Your task to perform on an android device: toggle location history Image 0: 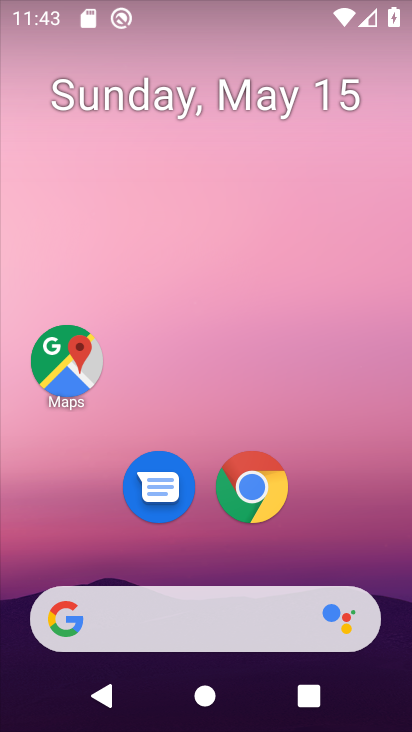
Step 0: drag from (247, 564) to (243, 154)
Your task to perform on an android device: toggle location history Image 1: 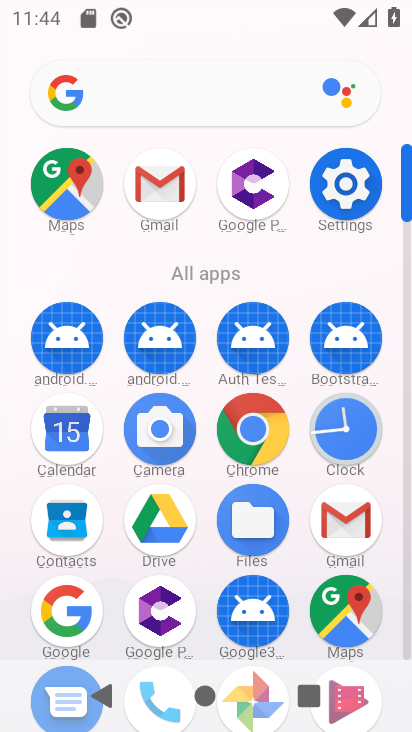
Step 1: click (340, 221)
Your task to perform on an android device: toggle location history Image 2: 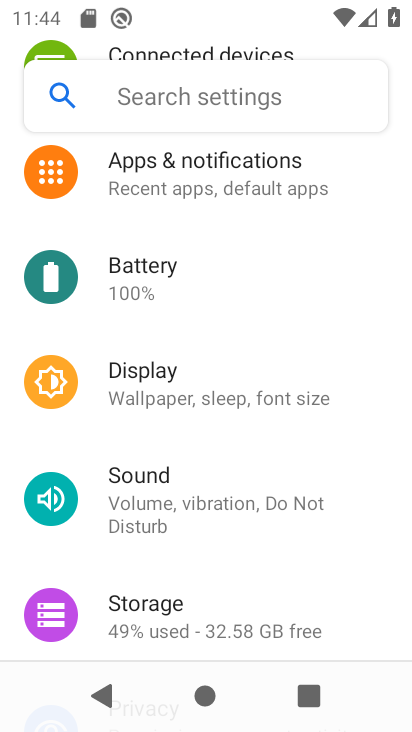
Step 2: drag from (192, 450) to (184, 287)
Your task to perform on an android device: toggle location history Image 3: 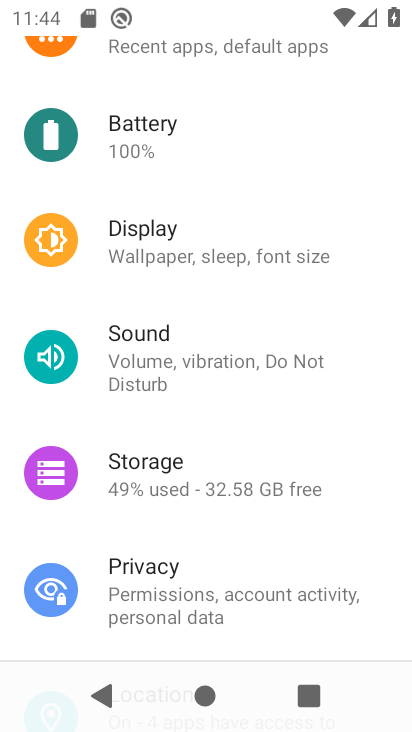
Step 3: drag from (204, 511) to (212, 387)
Your task to perform on an android device: toggle location history Image 4: 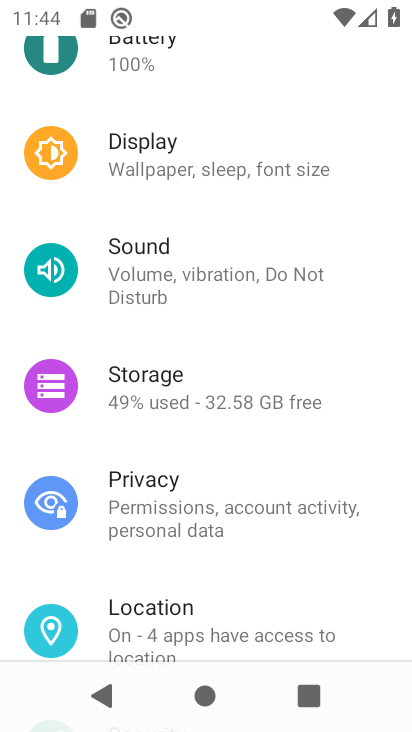
Step 4: click (199, 615)
Your task to perform on an android device: toggle location history Image 5: 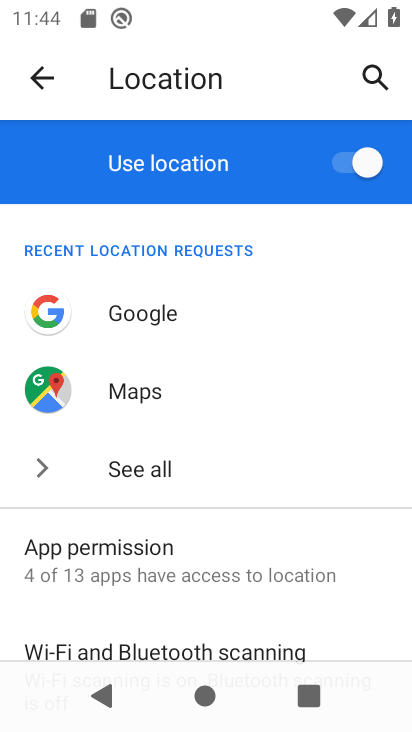
Step 5: drag from (192, 486) to (205, 248)
Your task to perform on an android device: toggle location history Image 6: 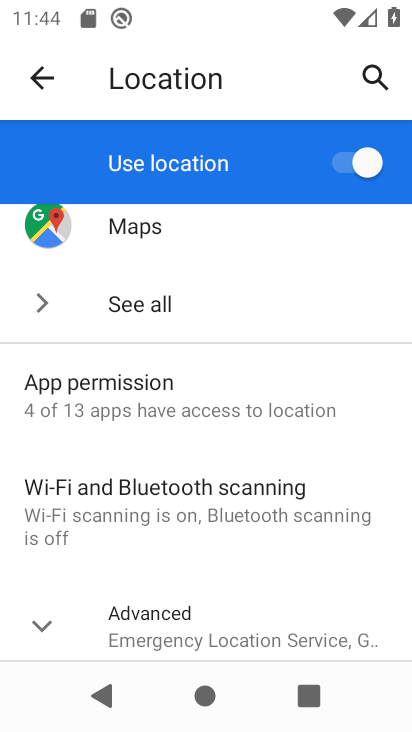
Step 6: drag from (207, 460) to (192, 181)
Your task to perform on an android device: toggle location history Image 7: 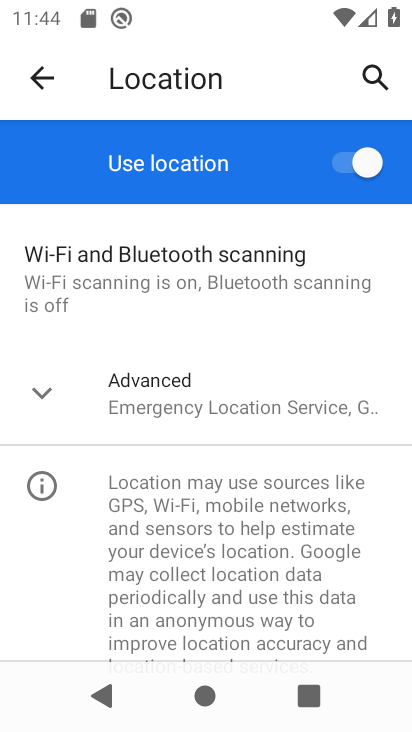
Step 7: click (174, 399)
Your task to perform on an android device: toggle location history Image 8: 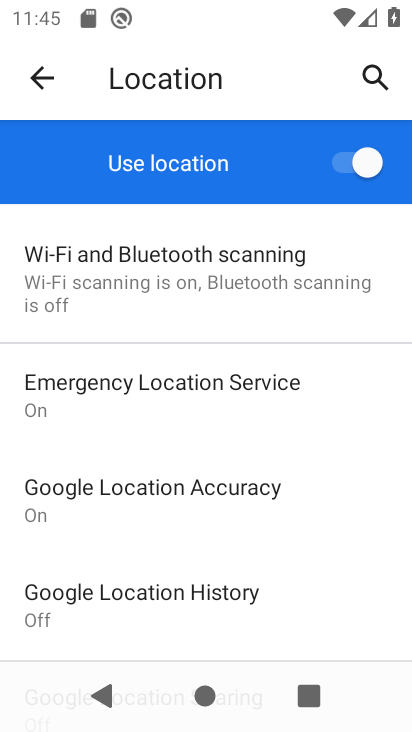
Step 8: drag from (164, 470) to (159, 393)
Your task to perform on an android device: toggle location history Image 9: 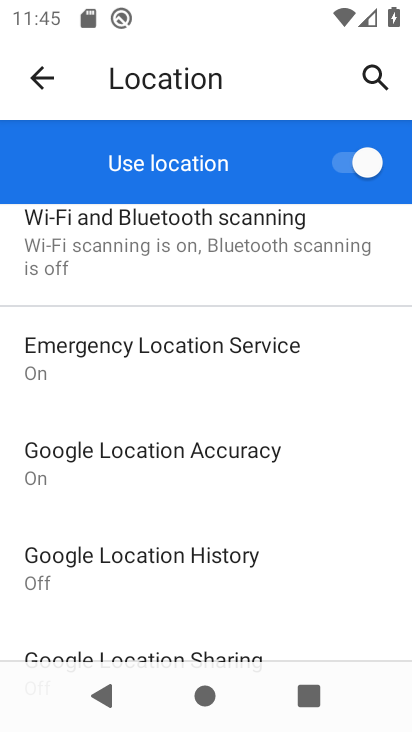
Step 9: click (171, 565)
Your task to perform on an android device: toggle location history Image 10: 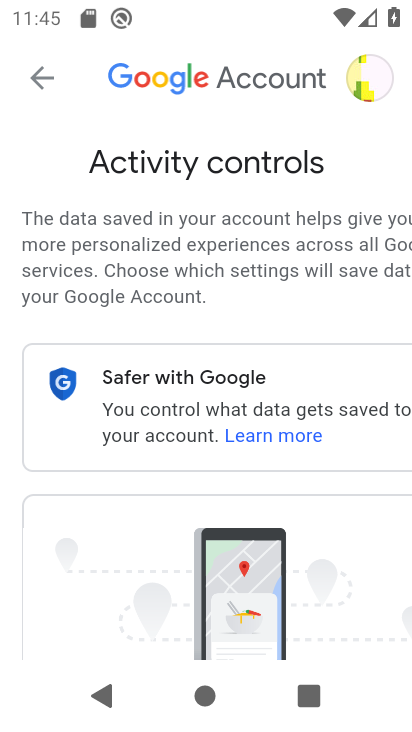
Step 10: drag from (291, 566) to (143, 217)
Your task to perform on an android device: toggle location history Image 11: 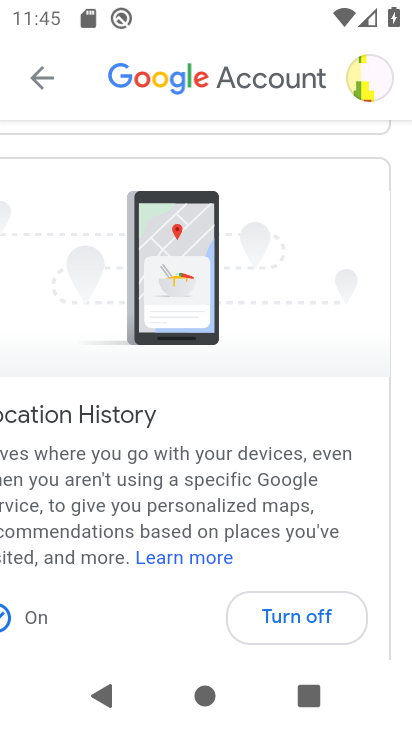
Step 11: click (316, 626)
Your task to perform on an android device: toggle location history Image 12: 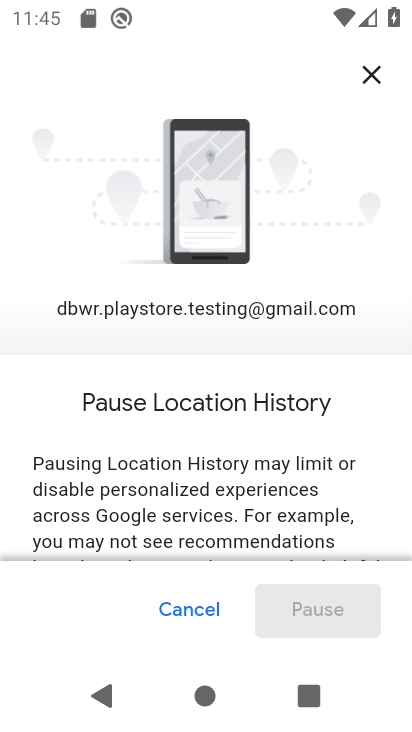
Step 12: drag from (284, 449) to (250, 113)
Your task to perform on an android device: toggle location history Image 13: 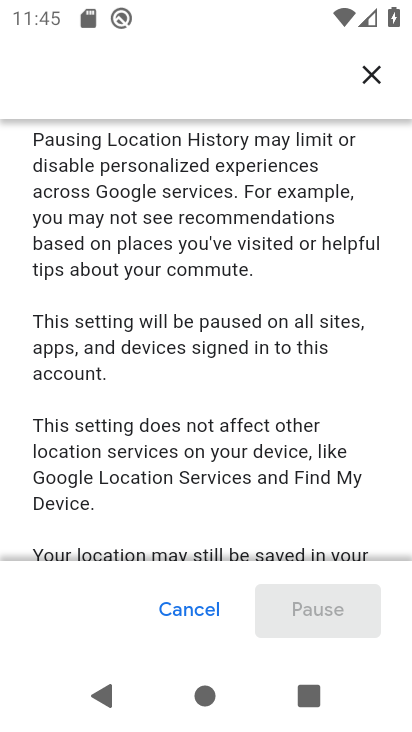
Step 13: drag from (261, 417) to (254, 173)
Your task to perform on an android device: toggle location history Image 14: 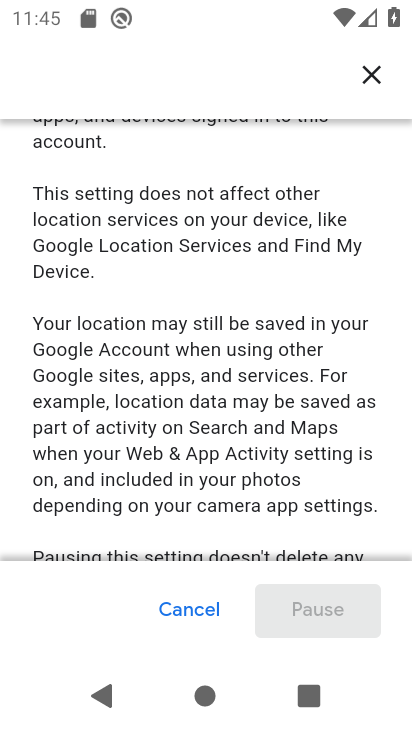
Step 14: drag from (320, 396) to (319, 145)
Your task to perform on an android device: toggle location history Image 15: 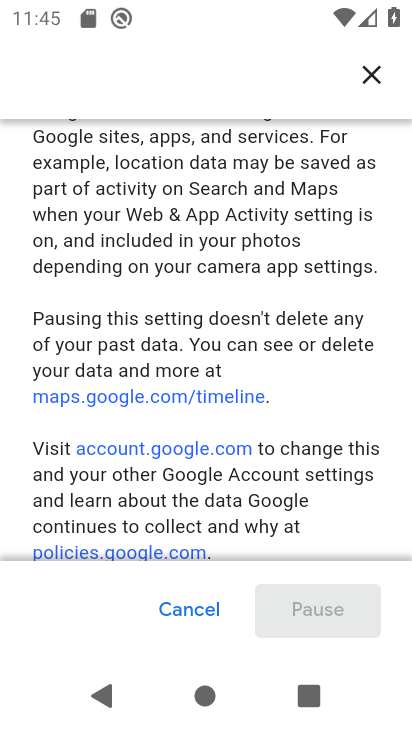
Step 15: drag from (303, 454) to (307, 217)
Your task to perform on an android device: toggle location history Image 16: 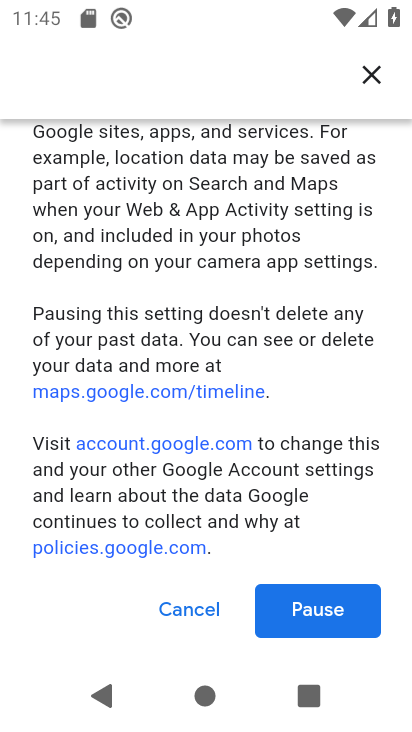
Step 16: click (337, 590)
Your task to perform on an android device: toggle location history Image 17: 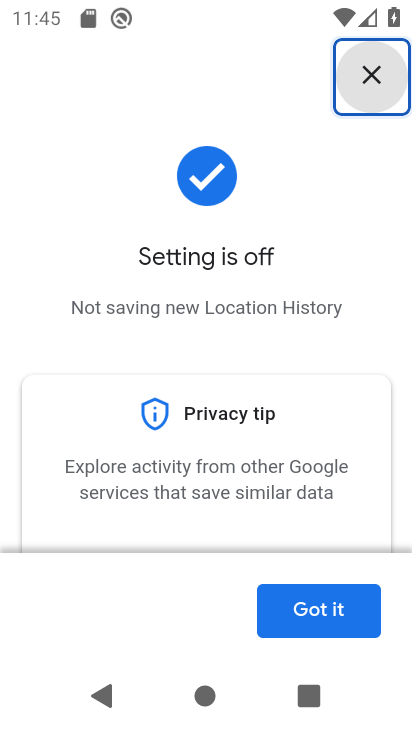
Step 17: click (323, 605)
Your task to perform on an android device: toggle location history Image 18: 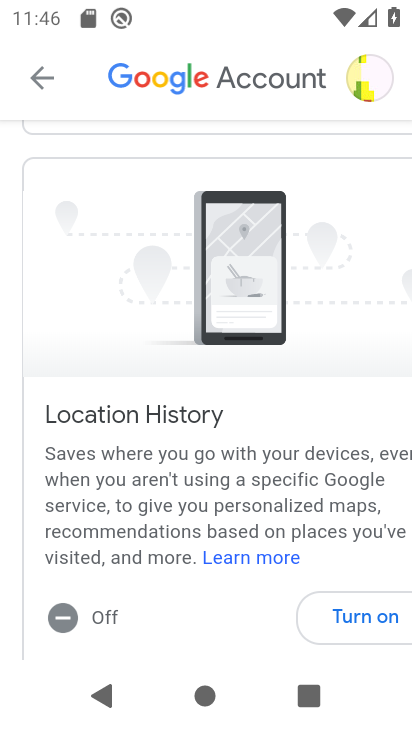
Step 18: task complete